Your task to perform on an android device: turn on improve location accuracy Image 0: 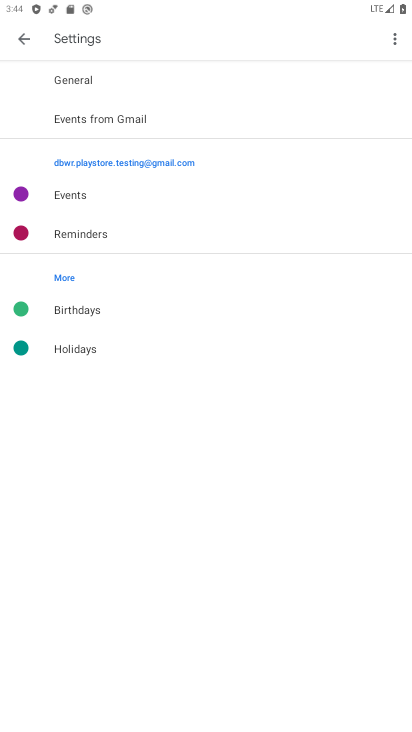
Step 0: press back button
Your task to perform on an android device: turn on improve location accuracy Image 1: 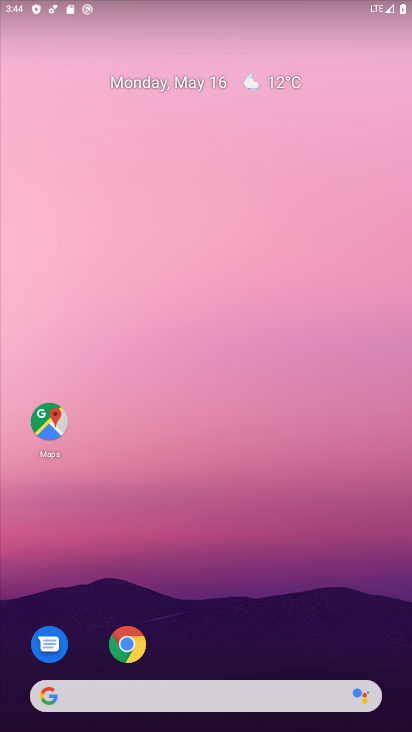
Step 1: drag from (206, 639) to (280, 130)
Your task to perform on an android device: turn on improve location accuracy Image 2: 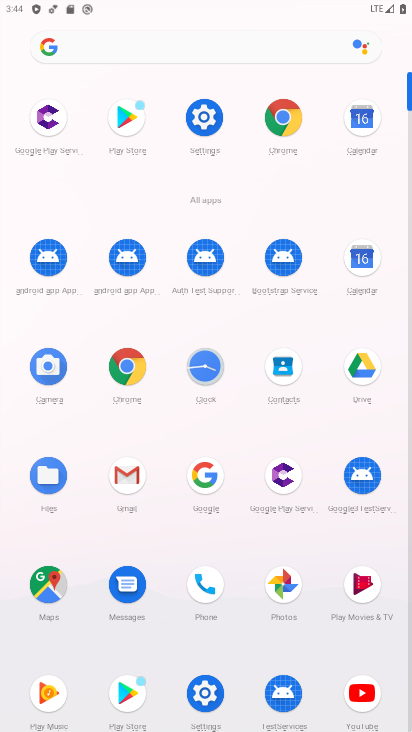
Step 2: click (203, 119)
Your task to perform on an android device: turn on improve location accuracy Image 3: 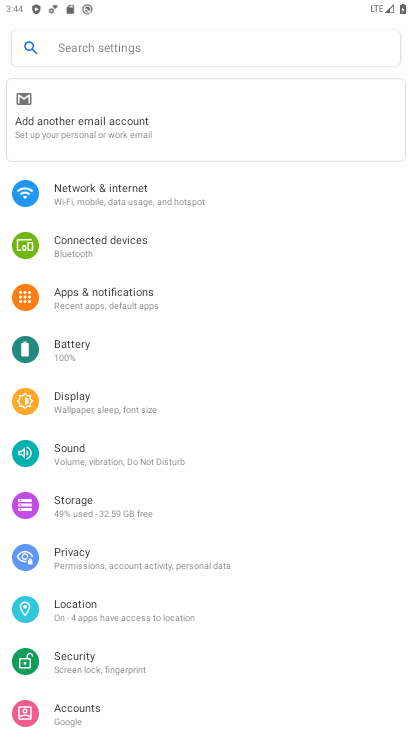
Step 3: click (115, 612)
Your task to perform on an android device: turn on improve location accuracy Image 4: 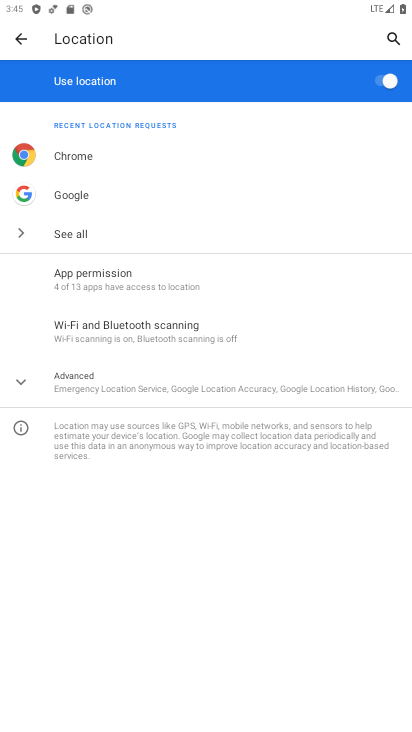
Step 4: click (113, 378)
Your task to perform on an android device: turn on improve location accuracy Image 5: 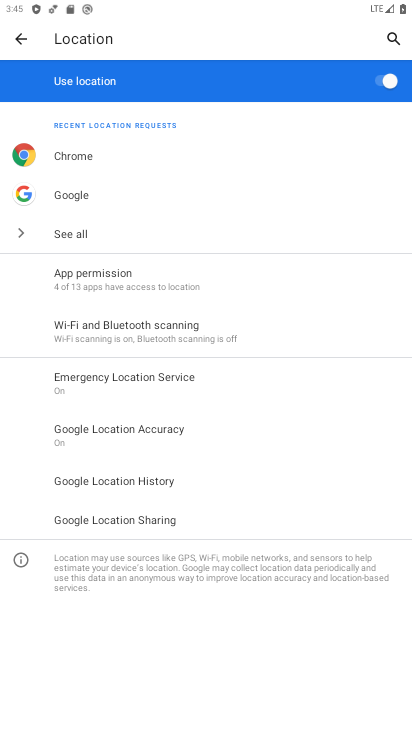
Step 5: click (138, 434)
Your task to perform on an android device: turn on improve location accuracy Image 6: 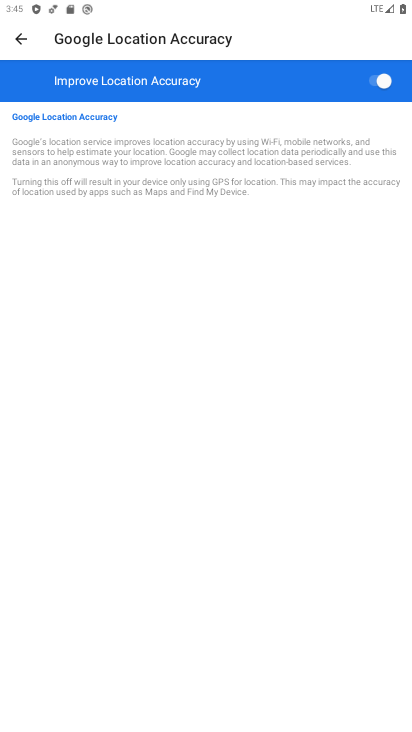
Step 6: task complete